Your task to perform on an android device: Show me recent news Image 0: 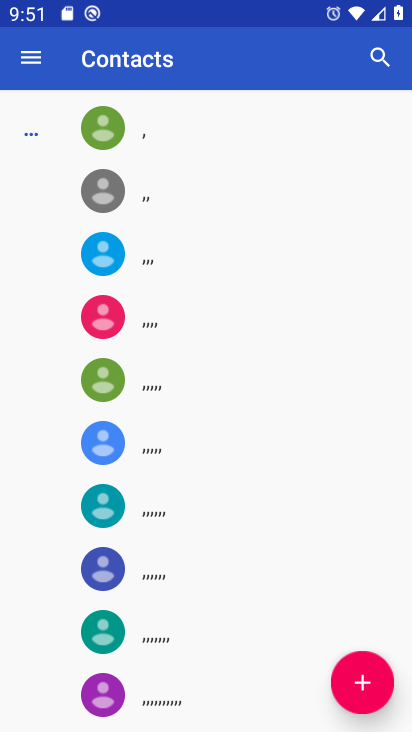
Step 0: press home button
Your task to perform on an android device: Show me recent news Image 1: 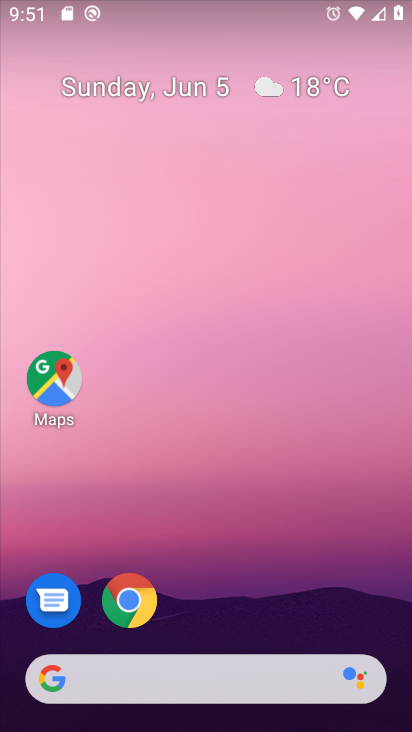
Step 1: click (239, 673)
Your task to perform on an android device: Show me recent news Image 2: 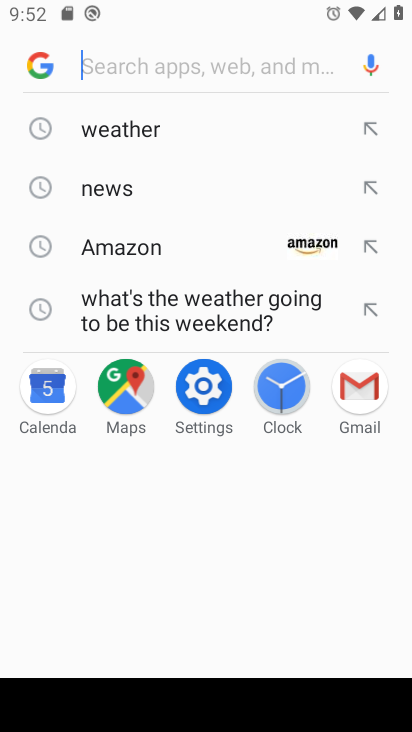
Step 2: click (91, 187)
Your task to perform on an android device: Show me recent news Image 3: 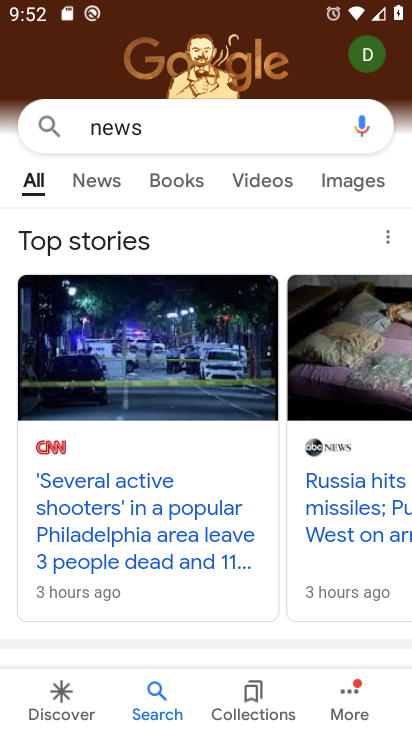
Step 3: click (97, 179)
Your task to perform on an android device: Show me recent news Image 4: 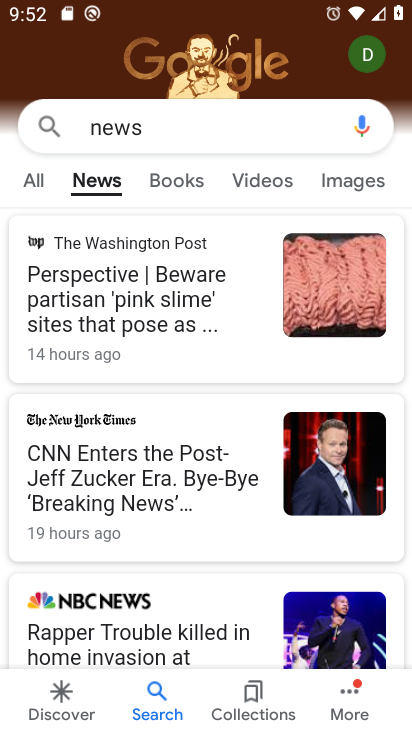
Step 4: drag from (196, 512) to (179, 207)
Your task to perform on an android device: Show me recent news Image 5: 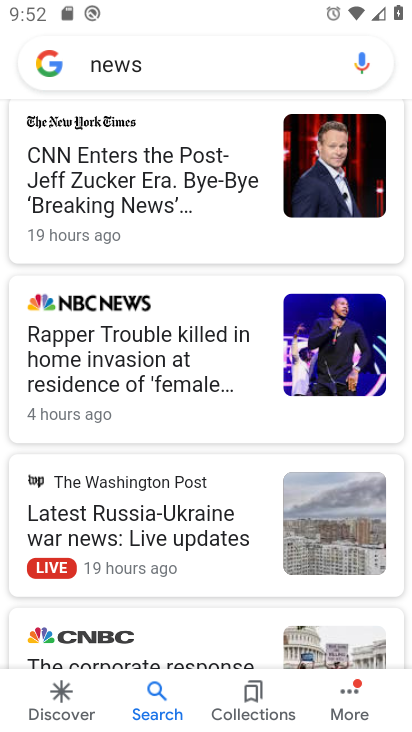
Step 5: click (143, 369)
Your task to perform on an android device: Show me recent news Image 6: 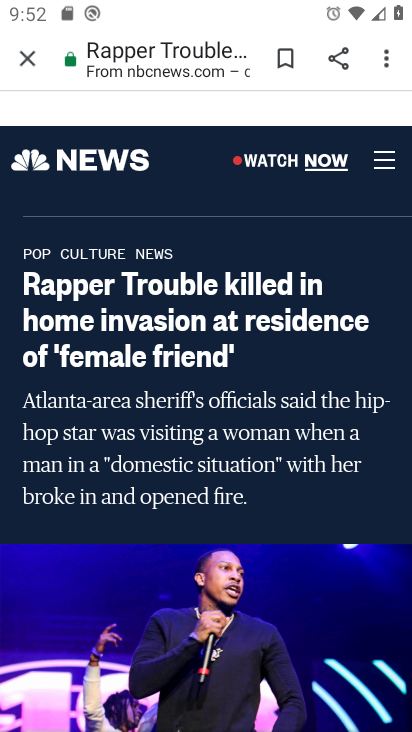
Step 6: task complete